Your task to perform on an android device: Open privacy settings Image 0: 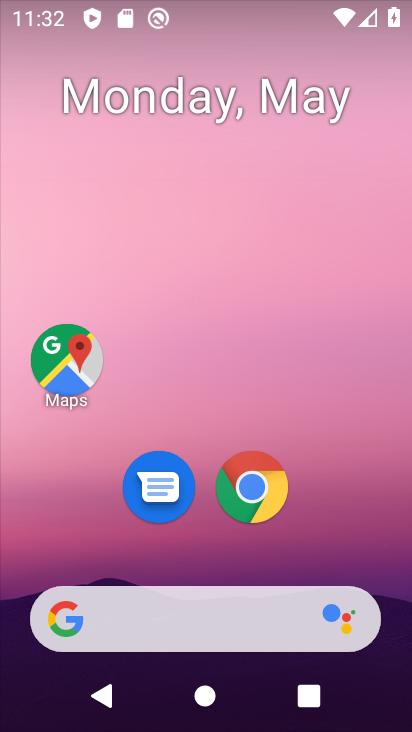
Step 0: press home button
Your task to perform on an android device: Open privacy settings Image 1: 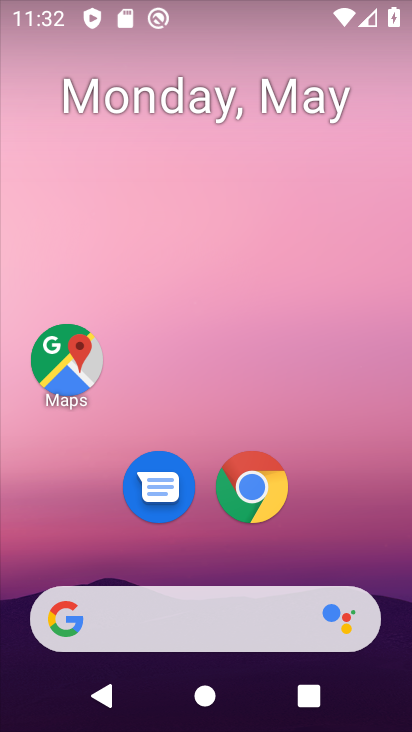
Step 1: drag from (14, 597) to (212, 164)
Your task to perform on an android device: Open privacy settings Image 2: 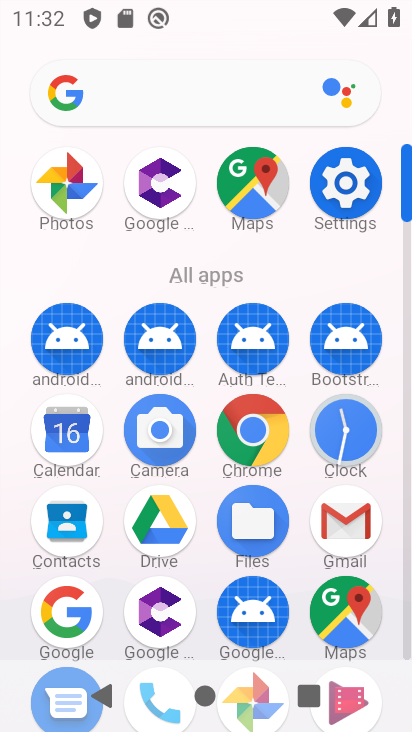
Step 2: click (337, 180)
Your task to perform on an android device: Open privacy settings Image 3: 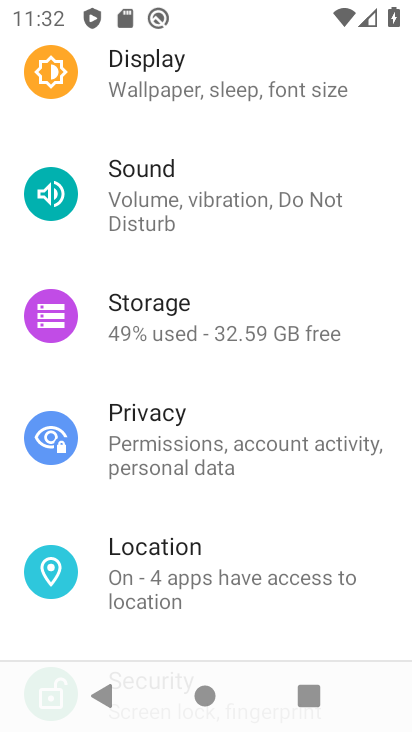
Step 3: drag from (15, 498) to (227, 48)
Your task to perform on an android device: Open privacy settings Image 4: 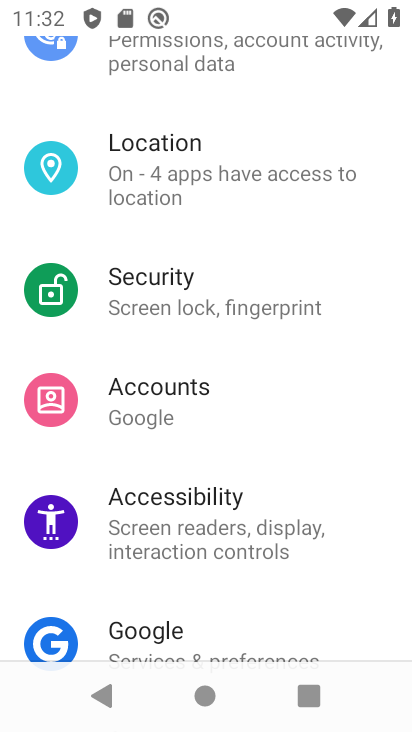
Step 4: drag from (88, 90) to (92, 426)
Your task to perform on an android device: Open privacy settings Image 5: 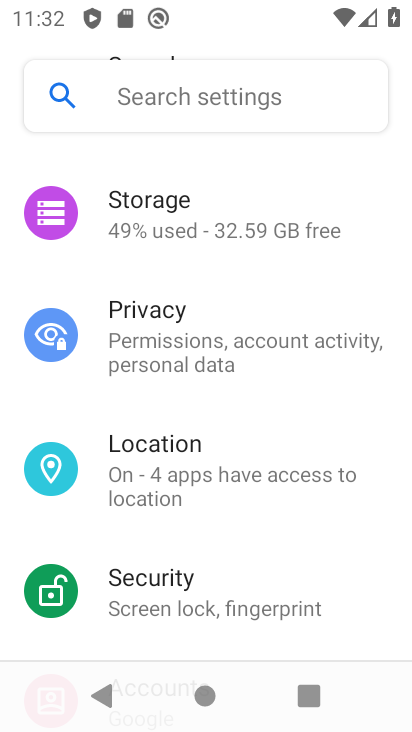
Step 5: click (123, 319)
Your task to perform on an android device: Open privacy settings Image 6: 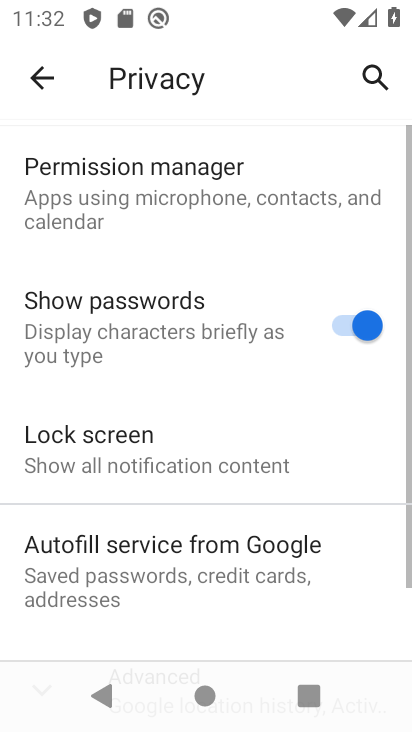
Step 6: task complete